Your task to perform on an android device: turn on javascript in the chrome app Image 0: 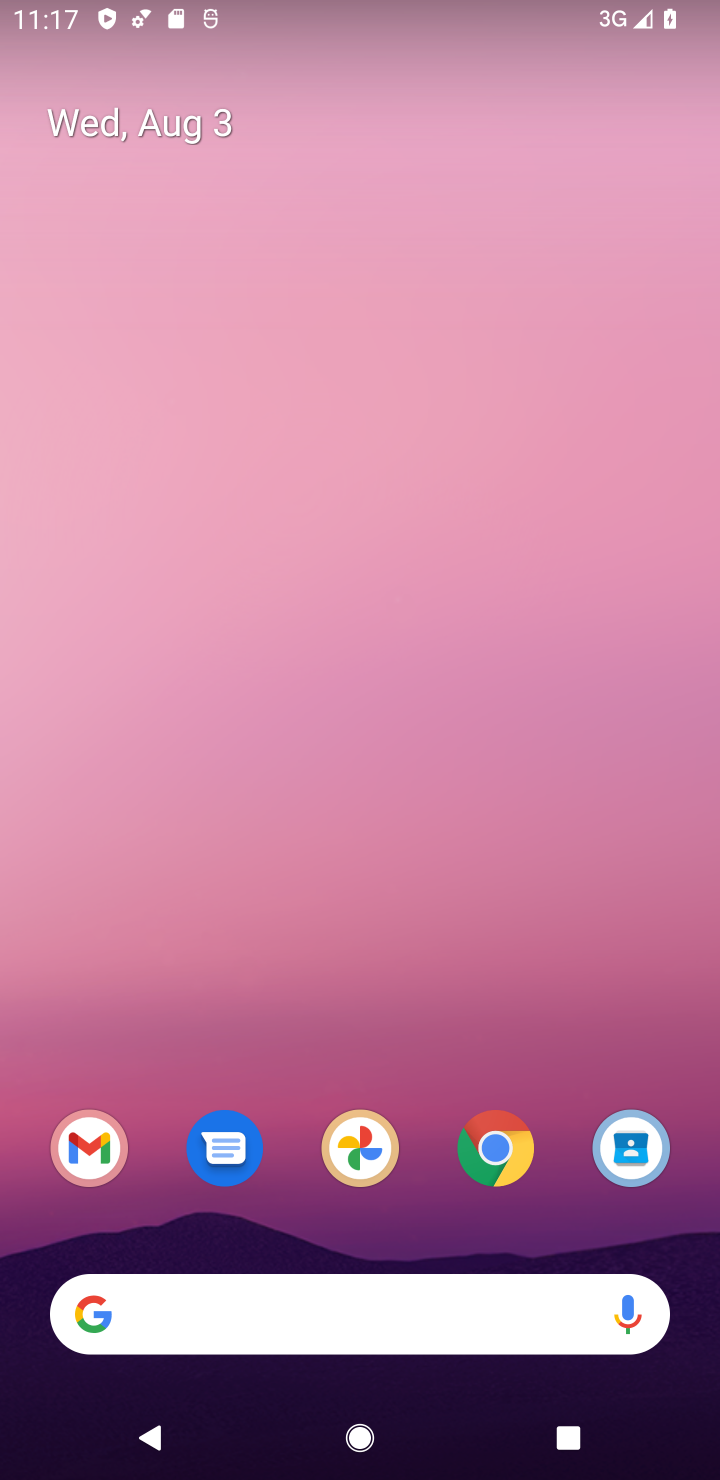
Step 0: click (502, 1154)
Your task to perform on an android device: turn on javascript in the chrome app Image 1: 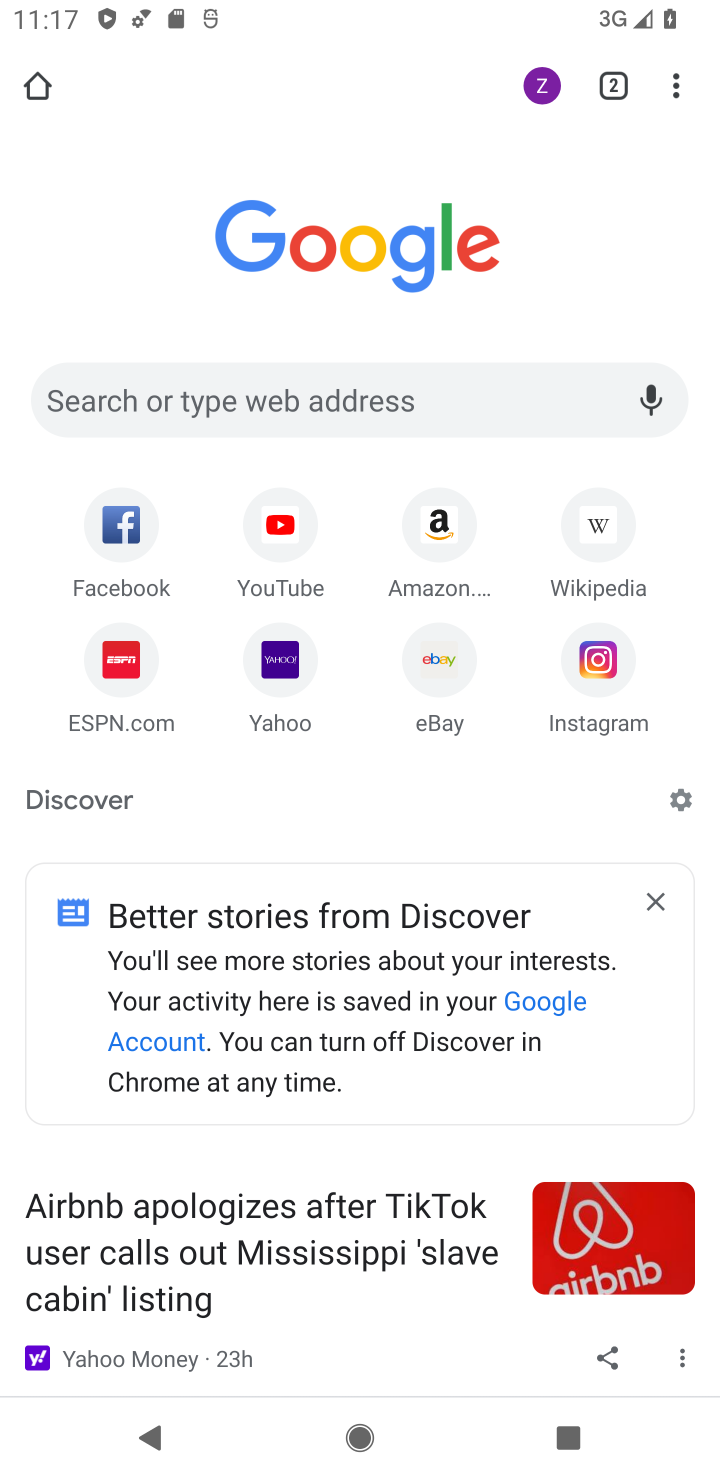
Step 1: task complete